Your task to perform on an android device: open device folders in google photos Image 0: 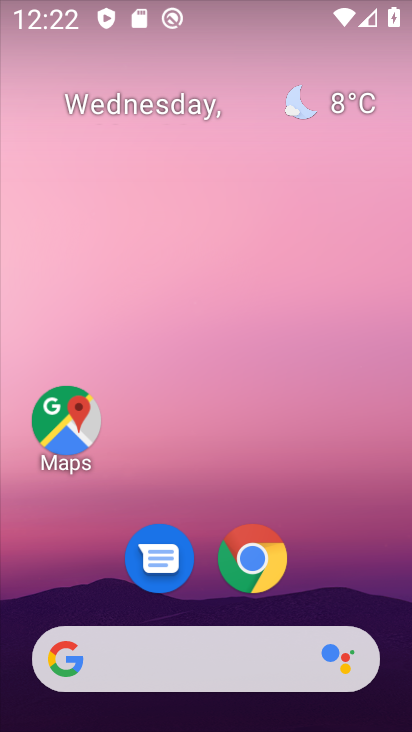
Step 0: drag from (316, 526) to (167, 1)
Your task to perform on an android device: open device folders in google photos Image 1: 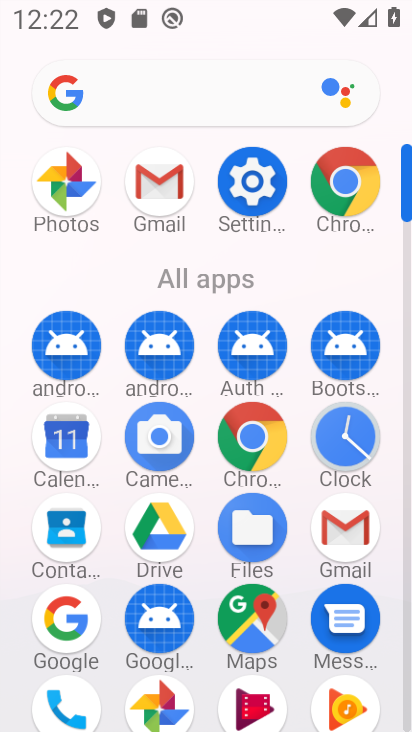
Step 1: drag from (11, 533) to (7, 171)
Your task to perform on an android device: open device folders in google photos Image 2: 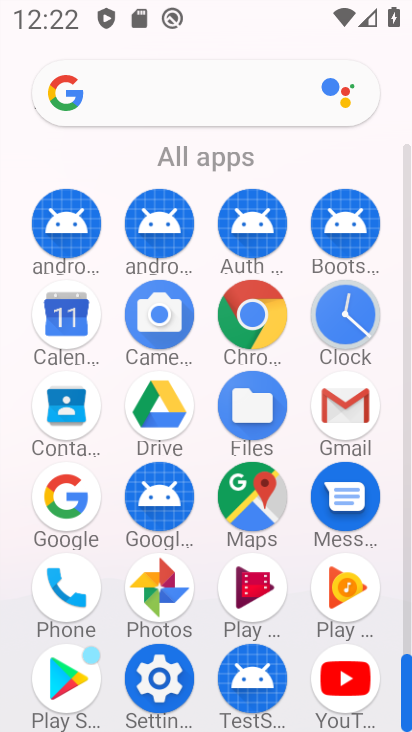
Step 2: click (153, 583)
Your task to perform on an android device: open device folders in google photos Image 3: 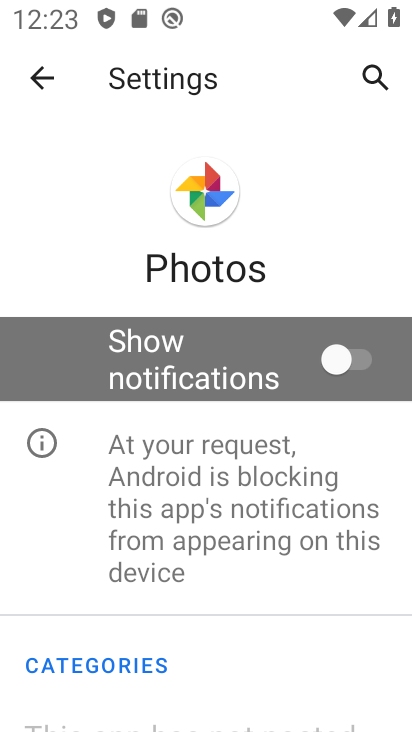
Step 3: click (35, 62)
Your task to perform on an android device: open device folders in google photos Image 4: 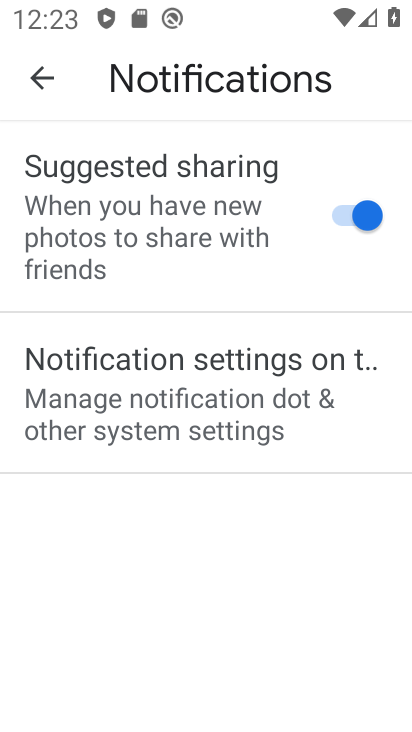
Step 4: click (35, 62)
Your task to perform on an android device: open device folders in google photos Image 5: 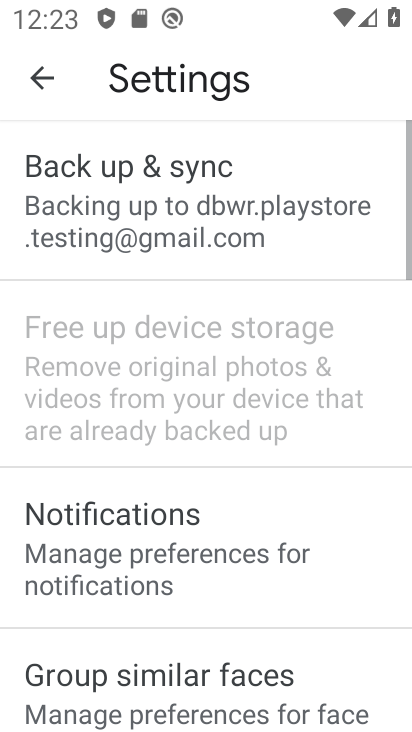
Step 5: click (38, 72)
Your task to perform on an android device: open device folders in google photos Image 6: 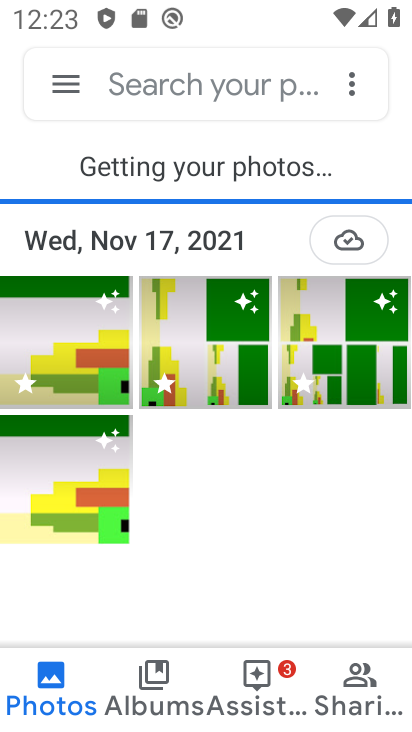
Step 6: click (57, 76)
Your task to perform on an android device: open device folders in google photos Image 7: 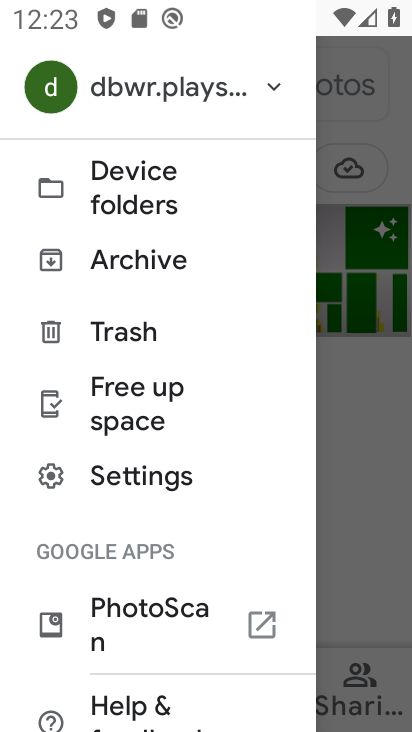
Step 7: click (144, 168)
Your task to perform on an android device: open device folders in google photos Image 8: 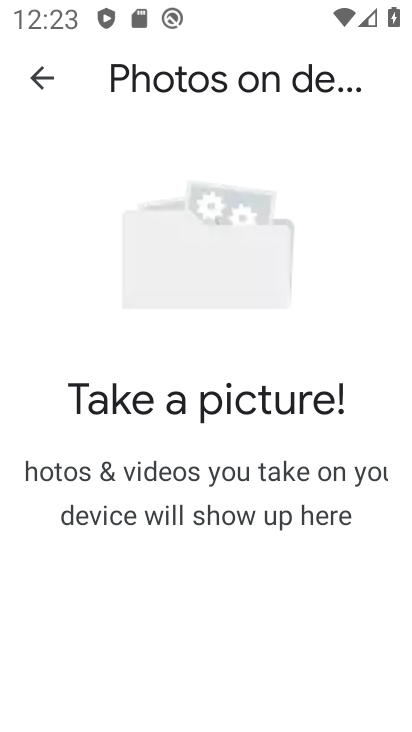
Step 8: task complete